Your task to perform on an android device: see creations saved in the google photos Image 0: 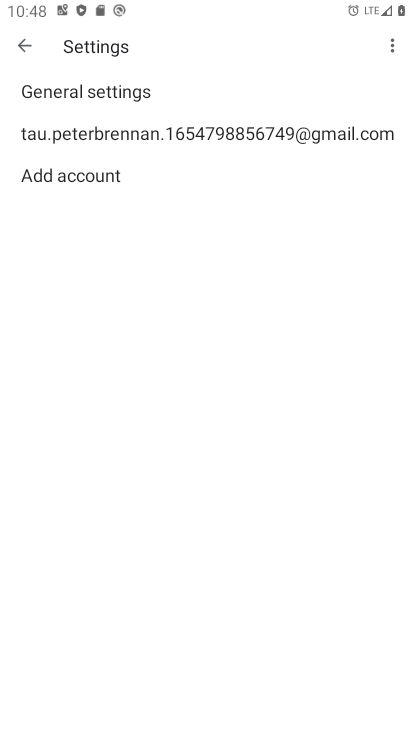
Step 0: press home button
Your task to perform on an android device: see creations saved in the google photos Image 1: 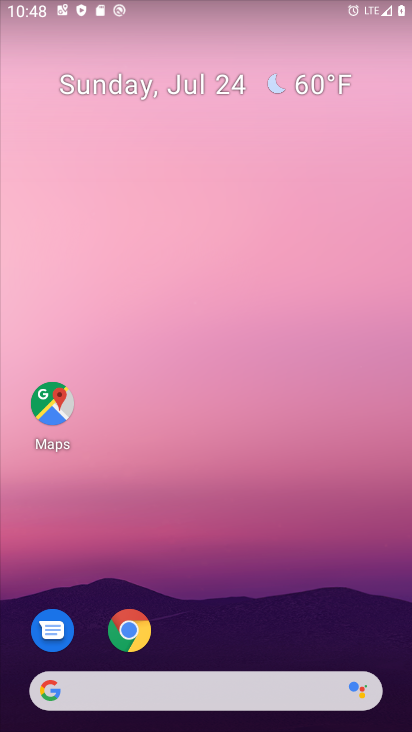
Step 1: drag from (235, 565) to (265, 53)
Your task to perform on an android device: see creations saved in the google photos Image 2: 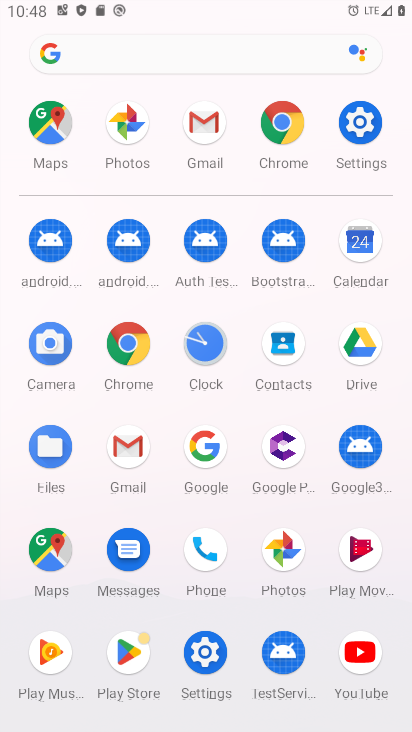
Step 2: click (276, 564)
Your task to perform on an android device: see creations saved in the google photos Image 3: 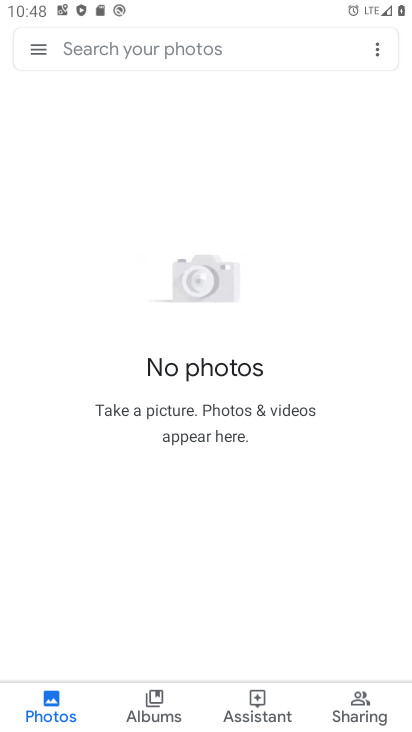
Step 3: click (174, 41)
Your task to perform on an android device: see creations saved in the google photos Image 4: 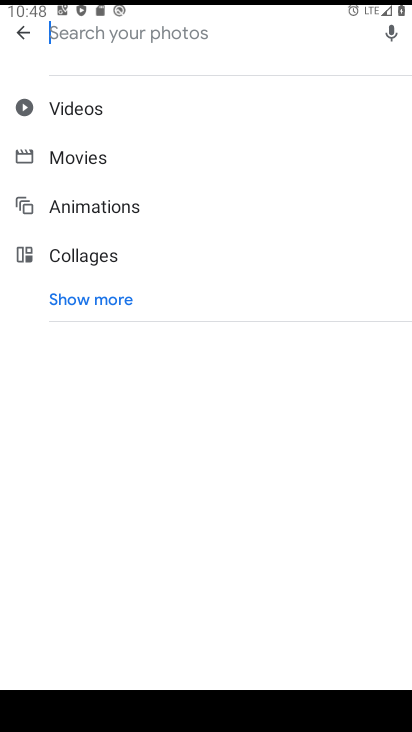
Step 4: type "creations"
Your task to perform on an android device: see creations saved in the google photos Image 5: 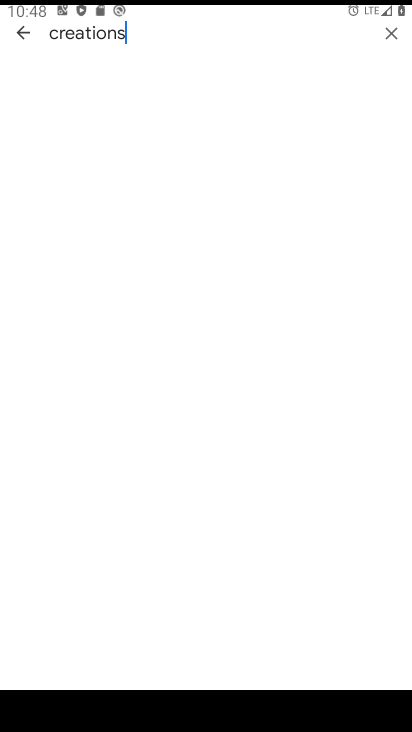
Step 5: click (182, 133)
Your task to perform on an android device: see creations saved in the google photos Image 6: 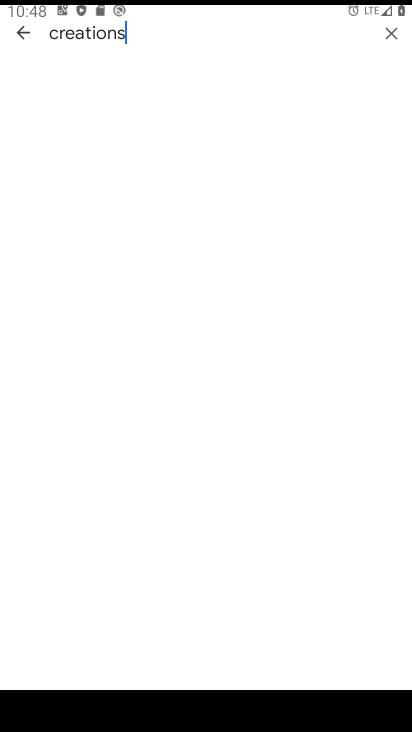
Step 6: click (163, 220)
Your task to perform on an android device: see creations saved in the google photos Image 7: 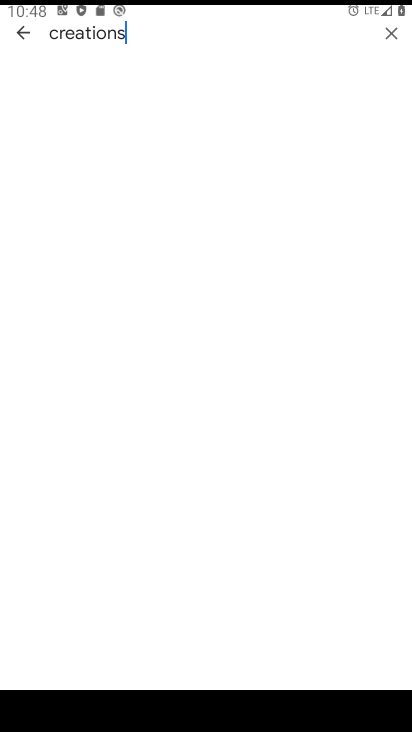
Step 7: task complete